Your task to perform on an android device: Go to display settings Image 0: 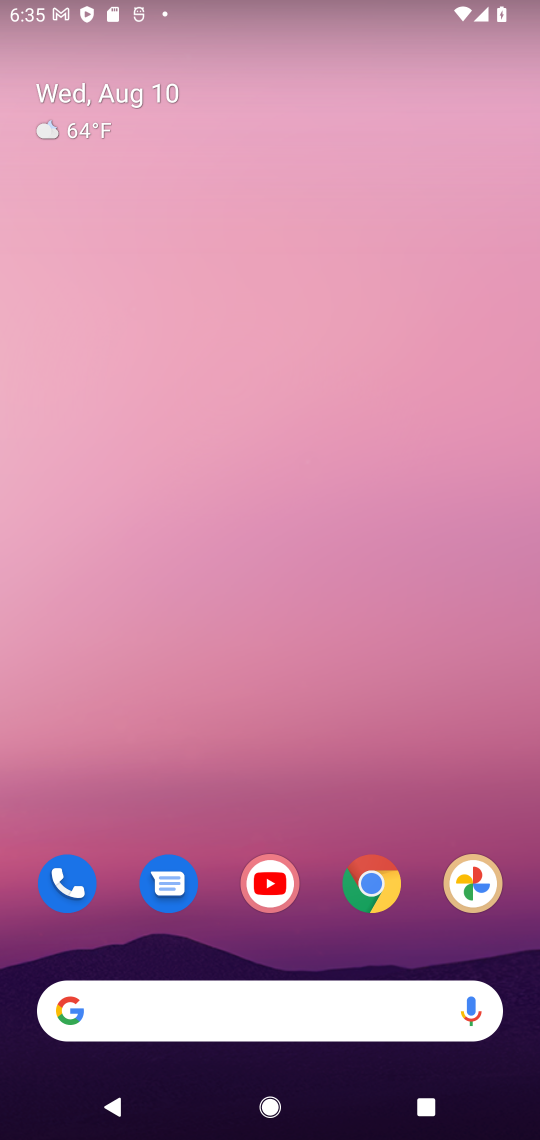
Step 0: drag from (321, 903) to (369, 47)
Your task to perform on an android device: Go to display settings Image 1: 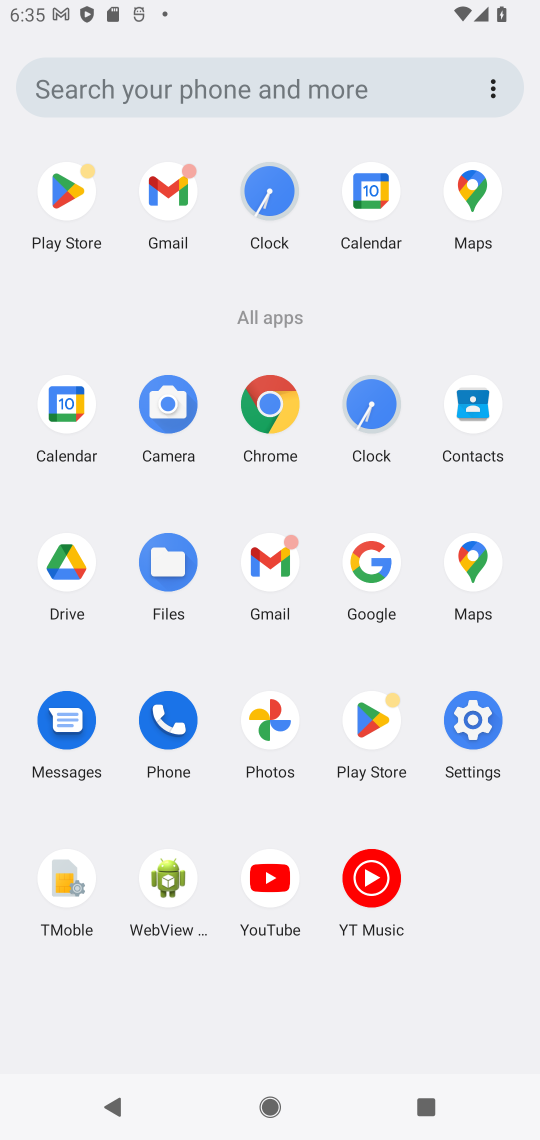
Step 1: click (473, 715)
Your task to perform on an android device: Go to display settings Image 2: 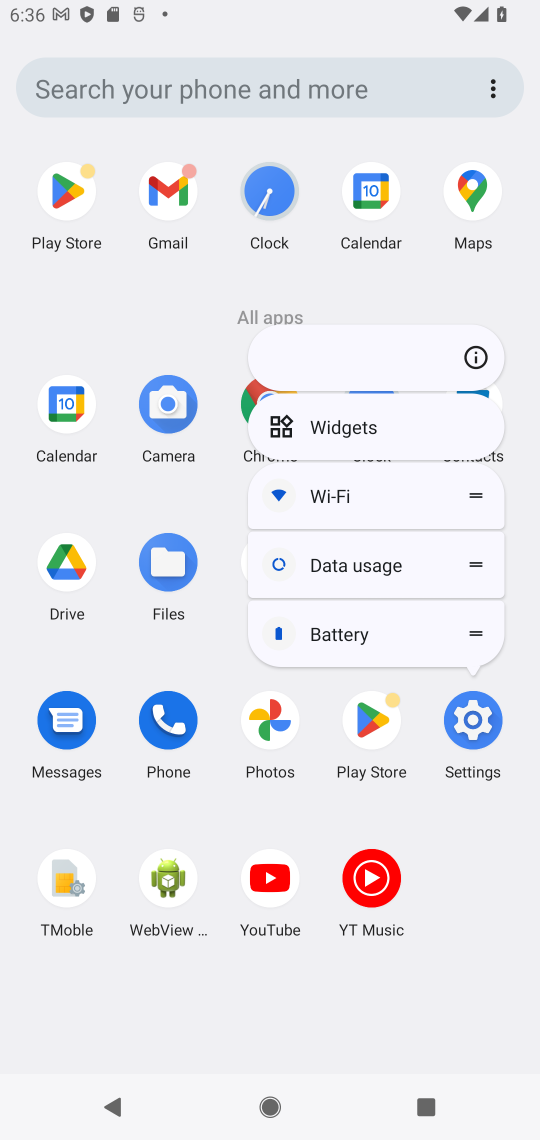
Step 2: click (469, 727)
Your task to perform on an android device: Go to display settings Image 3: 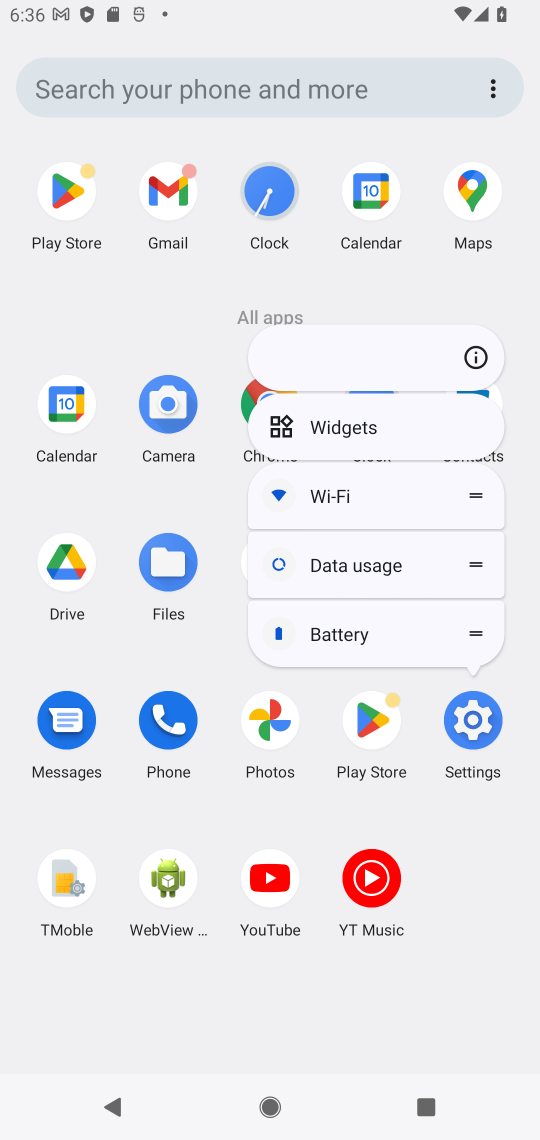
Step 3: click (468, 698)
Your task to perform on an android device: Go to display settings Image 4: 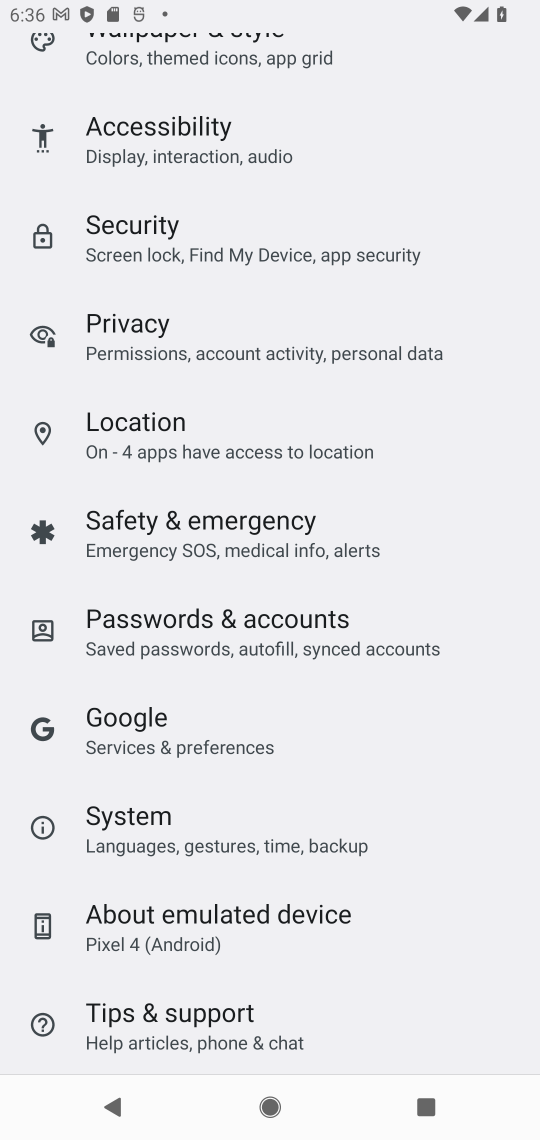
Step 4: drag from (183, 177) to (131, 838)
Your task to perform on an android device: Go to display settings Image 5: 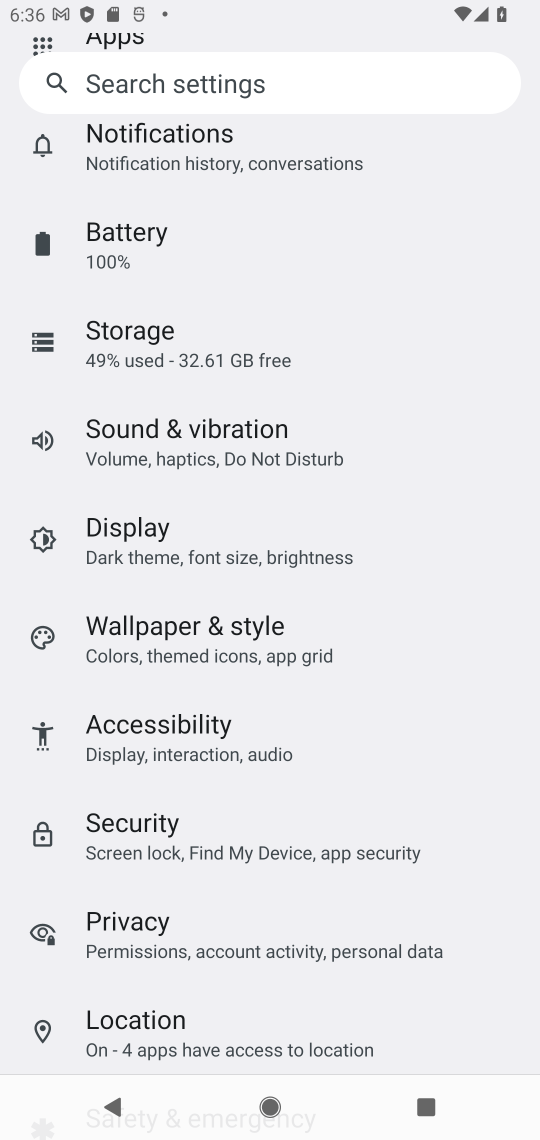
Step 5: drag from (191, 279) to (160, 401)
Your task to perform on an android device: Go to display settings Image 6: 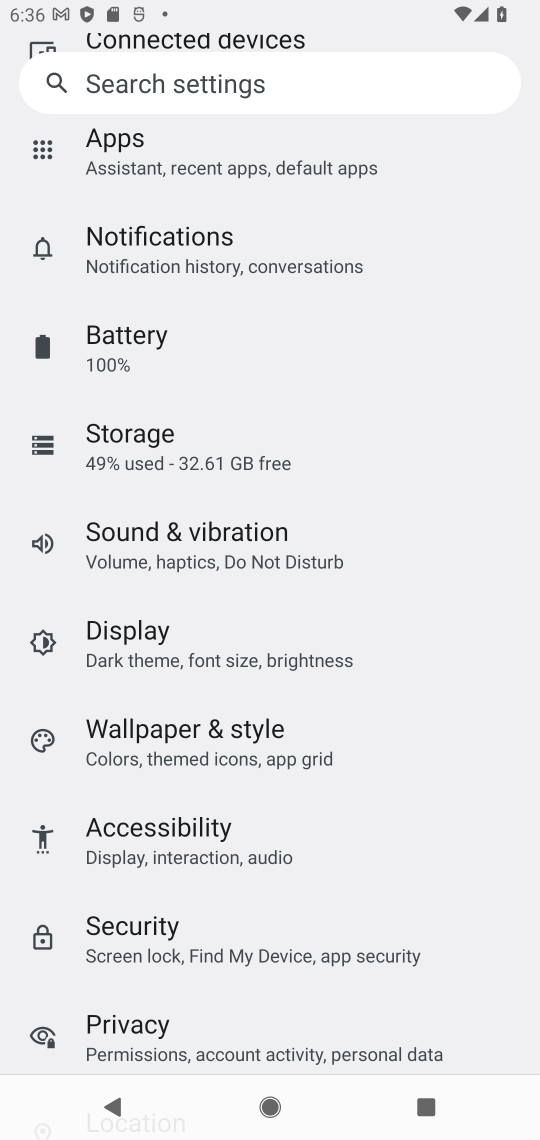
Step 6: click (167, 639)
Your task to perform on an android device: Go to display settings Image 7: 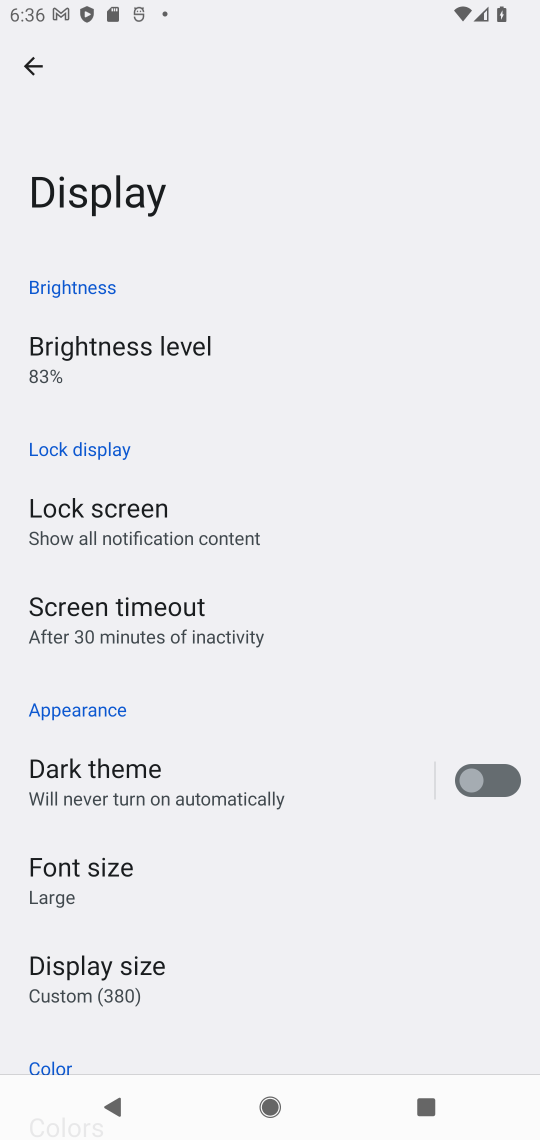
Step 7: task complete